Your task to perform on an android device: turn off airplane mode Image 0: 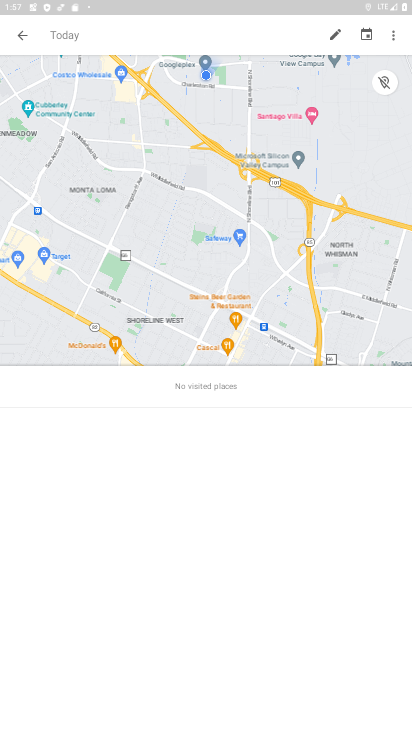
Step 0: drag from (195, 446) to (198, 120)
Your task to perform on an android device: turn off airplane mode Image 1: 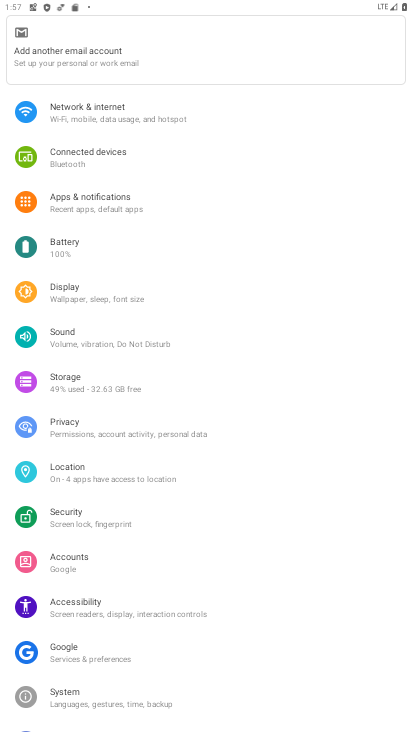
Step 1: click (94, 119)
Your task to perform on an android device: turn off airplane mode Image 2: 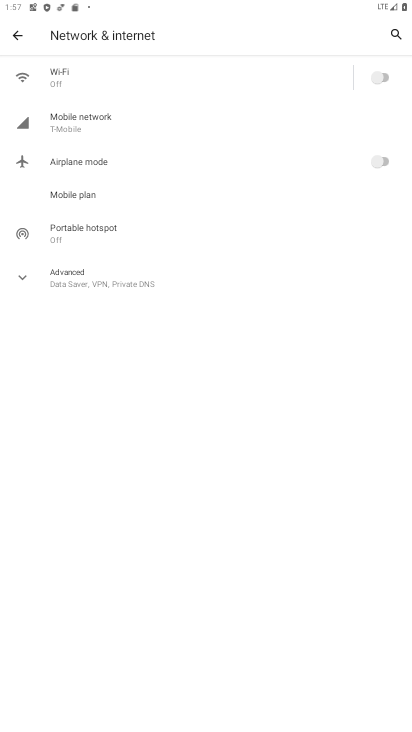
Step 2: task complete